Your task to perform on an android device: open wifi settings Image 0: 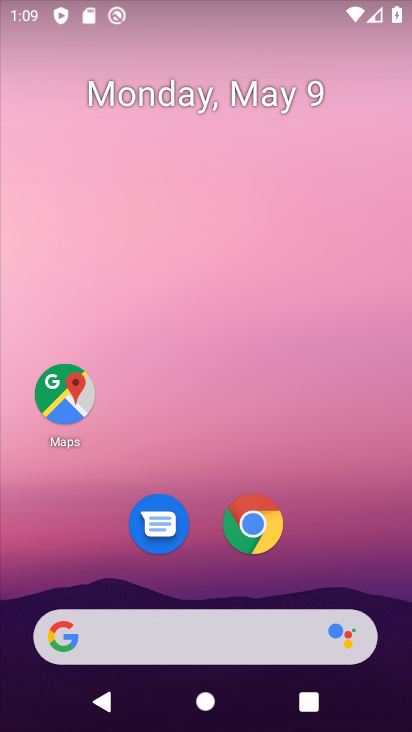
Step 0: drag from (326, 544) to (384, 58)
Your task to perform on an android device: open wifi settings Image 1: 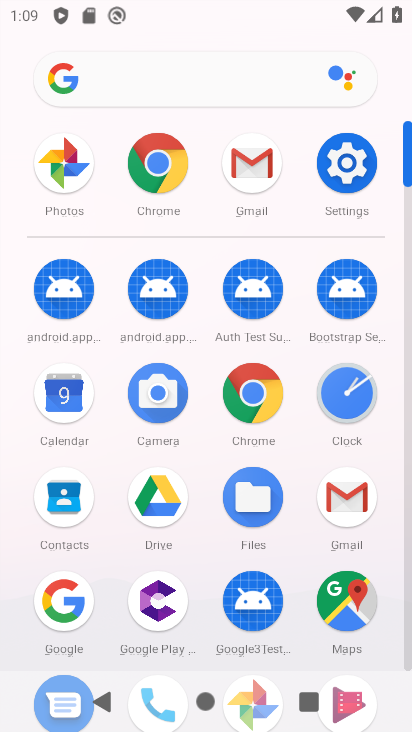
Step 1: click (342, 151)
Your task to perform on an android device: open wifi settings Image 2: 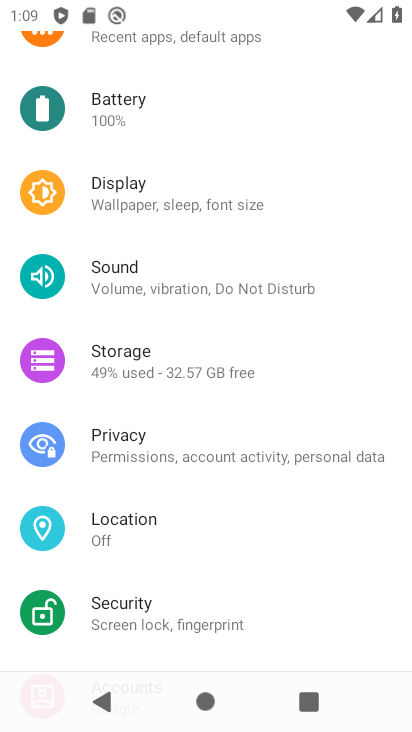
Step 2: drag from (253, 194) to (196, 560)
Your task to perform on an android device: open wifi settings Image 3: 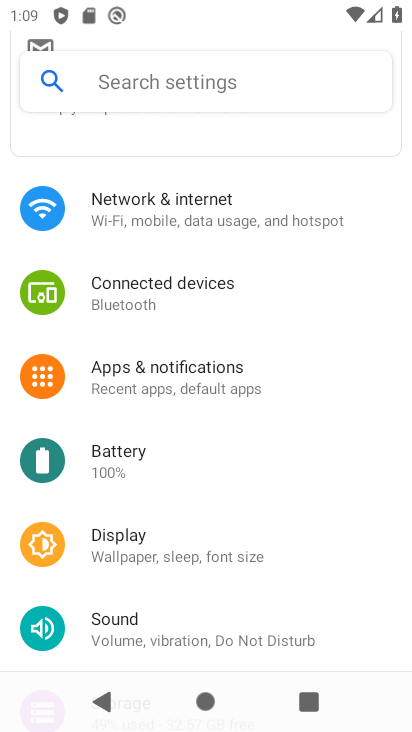
Step 3: click (207, 201)
Your task to perform on an android device: open wifi settings Image 4: 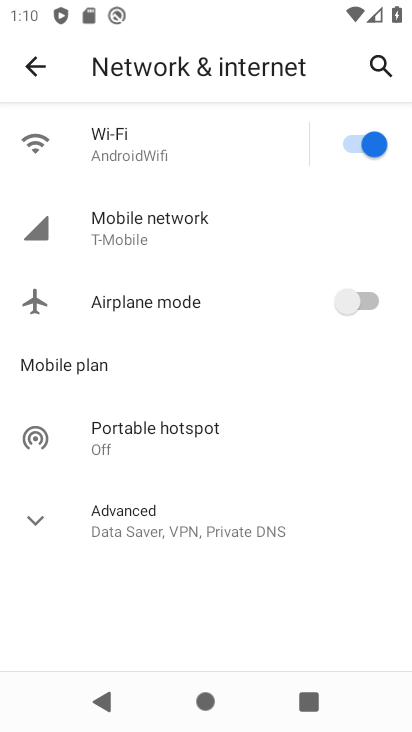
Step 4: click (215, 139)
Your task to perform on an android device: open wifi settings Image 5: 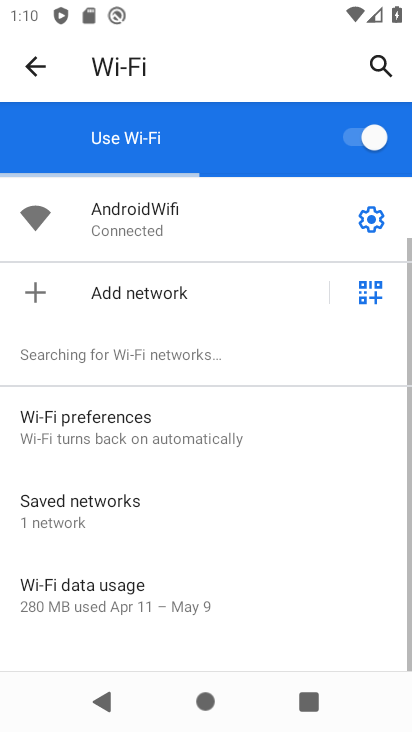
Step 5: task complete